Your task to perform on an android device: turn pop-ups on in chrome Image 0: 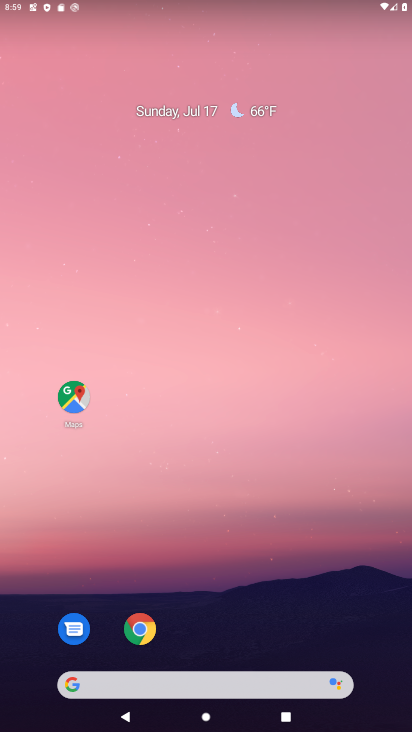
Step 0: press home button
Your task to perform on an android device: turn pop-ups on in chrome Image 1: 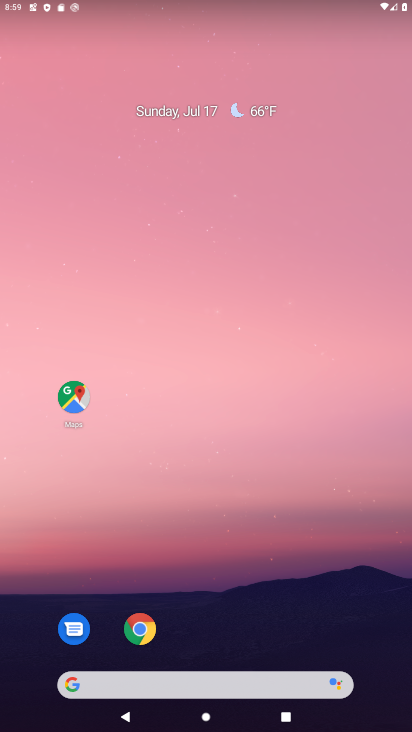
Step 1: click (146, 628)
Your task to perform on an android device: turn pop-ups on in chrome Image 2: 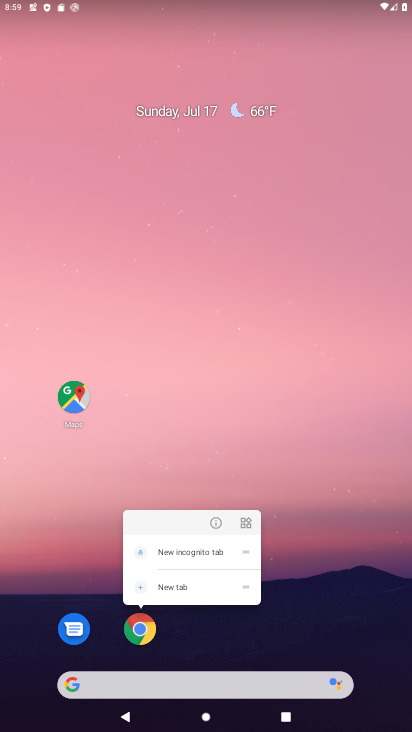
Step 2: click (145, 627)
Your task to perform on an android device: turn pop-ups on in chrome Image 3: 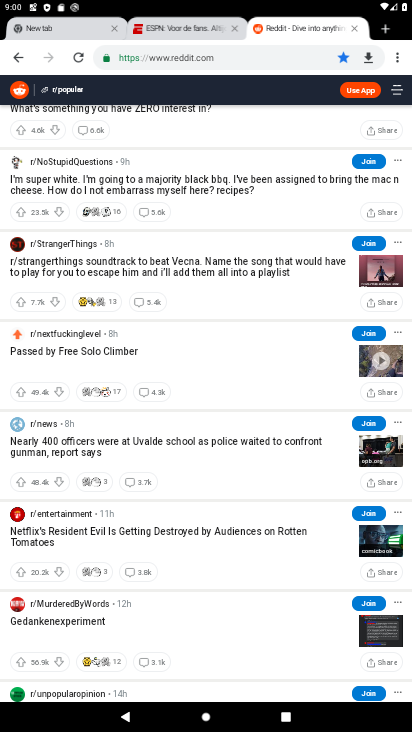
Step 3: click (396, 57)
Your task to perform on an android device: turn pop-ups on in chrome Image 4: 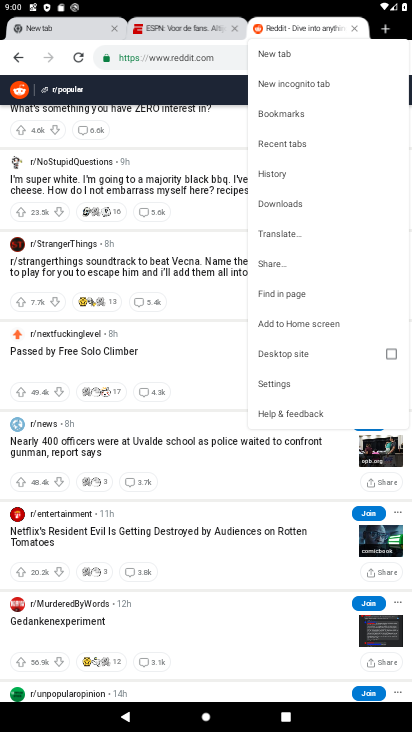
Step 4: click (289, 376)
Your task to perform on an android device: turn pop-ups on in chrome Image 5: 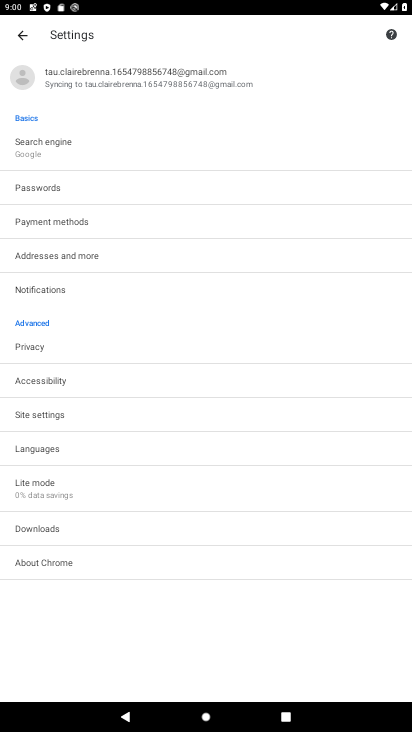
Step 5: click (72, 415)
Your task to perform on an android device: turn pop-ups on in chrome Image 6: 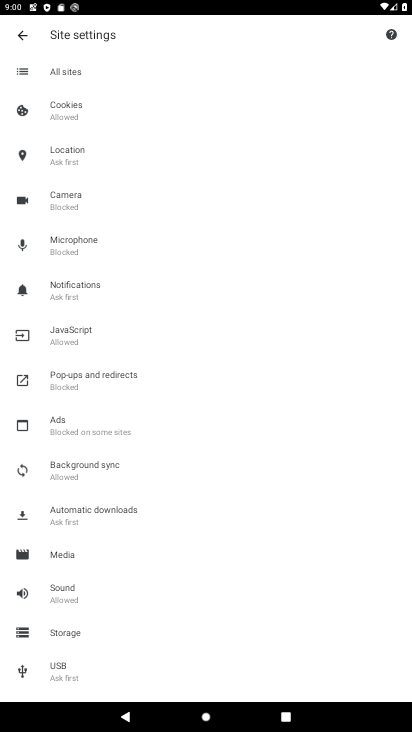
Step 6: click (86, 383)
Your task to perform on an android device: turn pop-ups on in chrome Image 7: 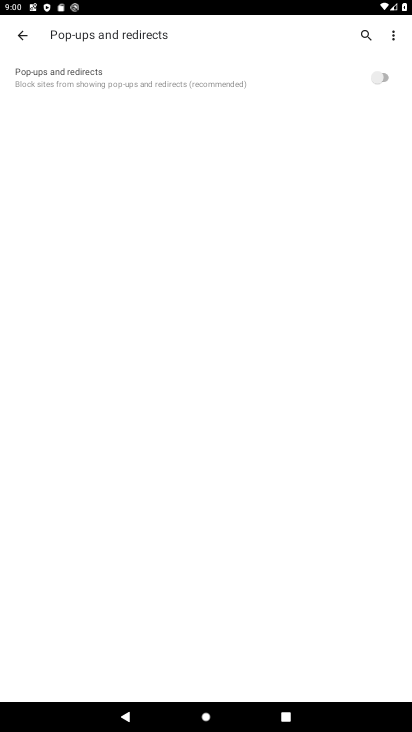
Step 7: click (382, 77)
Your task to perform on an android device: turn pop-ups on in chrome Image 8: 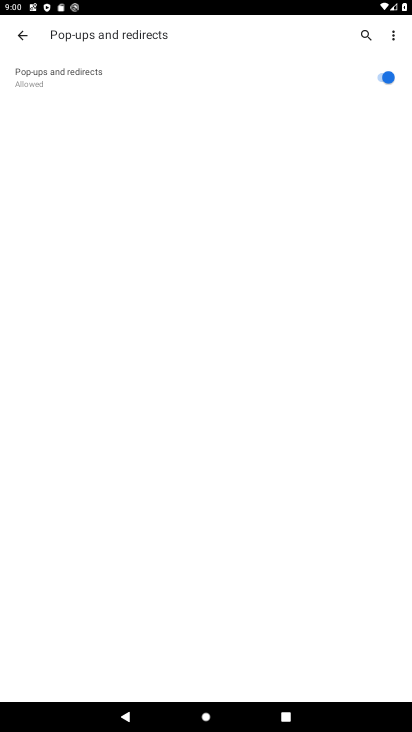
Step 8: task complete